Your task to perform on an android device: turn off data saver in the chrome app Image 0: 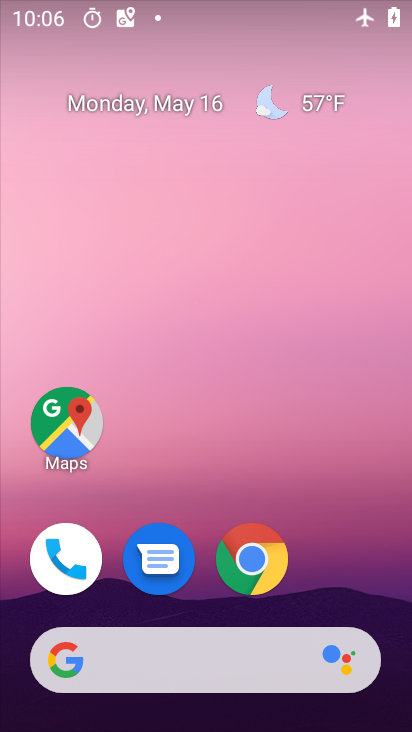
Step 0: click (253, 561)
Your task to perform on an android device: turn off data saver in the chrome app Image 1: 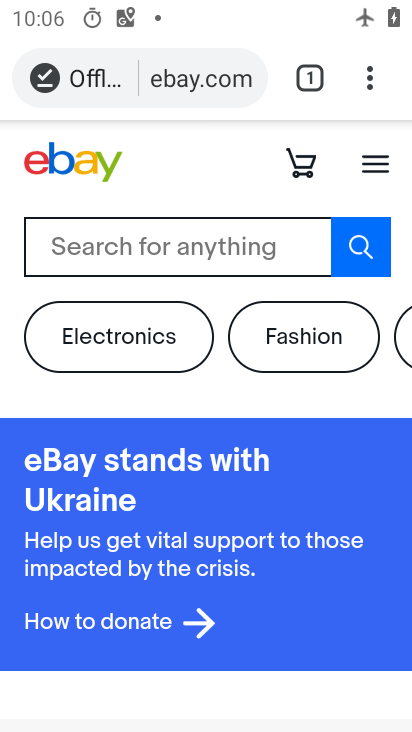
Step 1: drag from (374, 76) to (177, 611)
Your task to perform on an android device: turn off data saver in the chrome app Image 2: 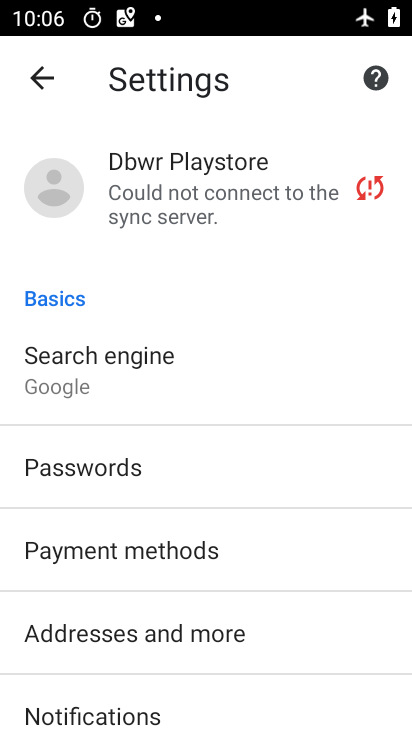
Step 2: drag from (181, 606) to (318, 132)
Your task to perform on an android device: turn off data saver in the chrome app Image 3: 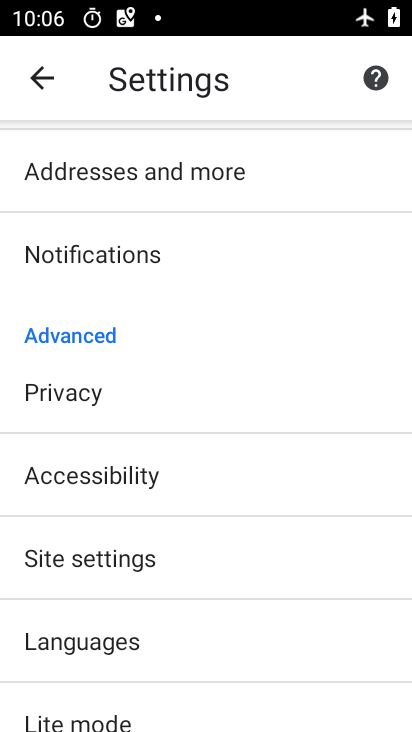
Step 3: drag from (181, 590) to (257, 398)
Your task to perform on an android device: turn off data saver in the chrome app Image 4: 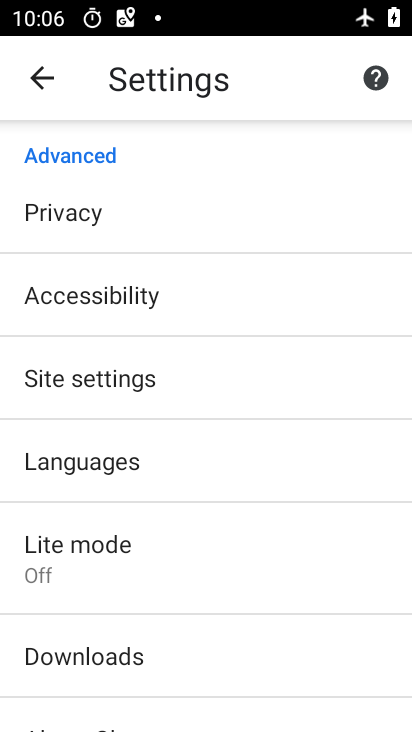
Step 4: click (179, 376)
Your task to perform on an android device: turn off data saver in the chrome app Image 5: 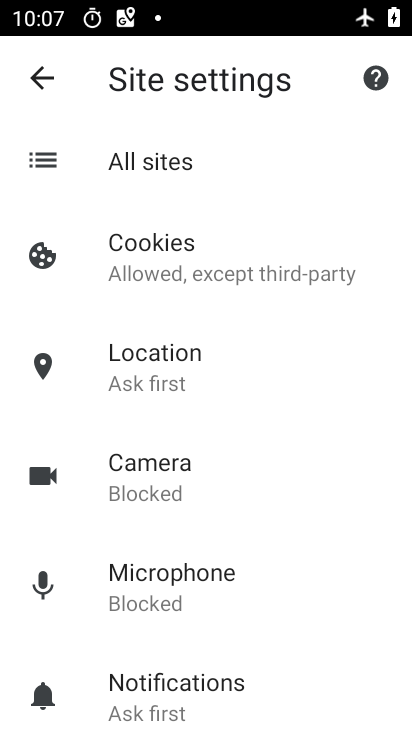
Step 5: click (37, 80)
Your task to perform on an android device: turn off data saver in the chrome app Image 6: 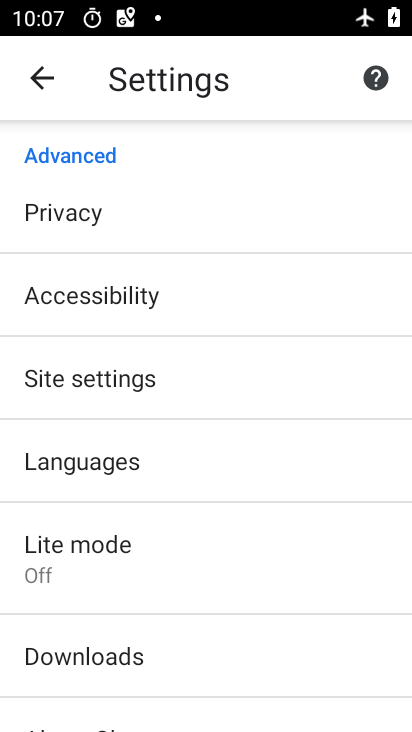
Step 6: click (121, 551)
Your task to perform on an android device: turn off data saver in the chrome app Image 7: 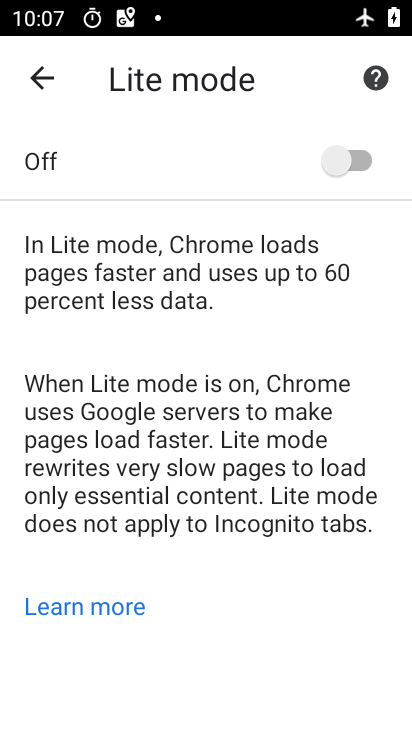
Step 7: task complete